Your task to perform on an android device: Open Yahoo.com Image 0: 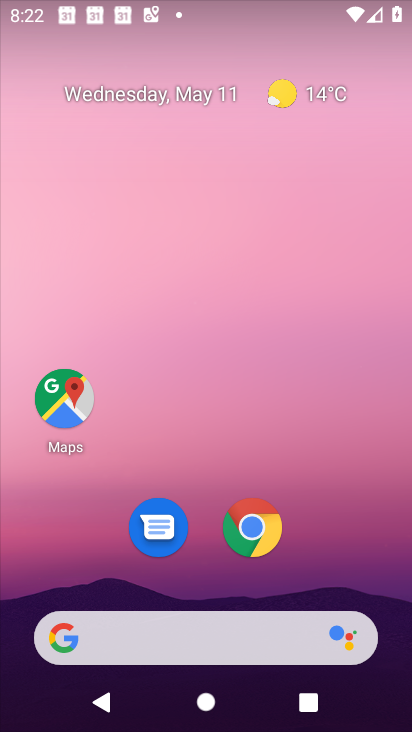
Step 0: click (246, 529)
Your task to perform on an android device: Open Yahoo.com Image 1: 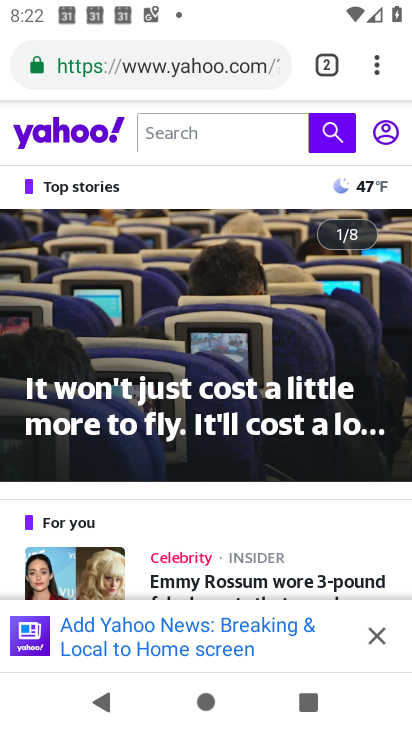
Step 1: task complete